Your task to perform on an android device: turn on translation in the chrome app Image 0: 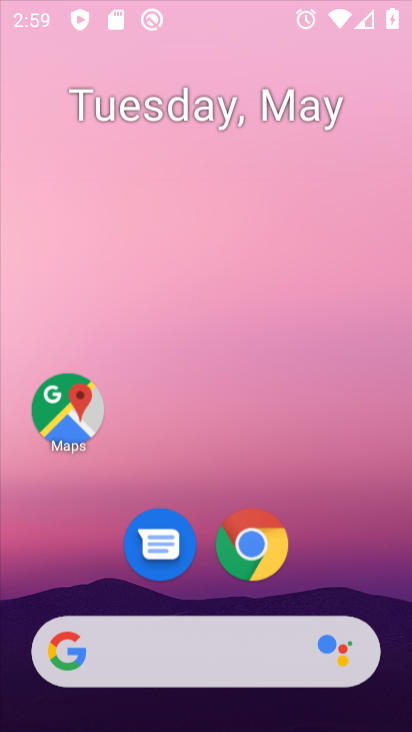
Step 0: click (409, 217)
Your task to perform on an android device: turn on translation in the chrome app Image 1: 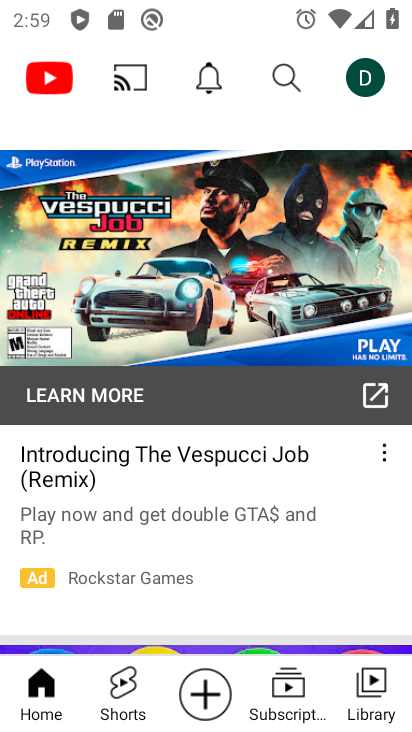
Step 1: press home button
Your task to perform on an android device: turn on translation in the chrome app Image 2: 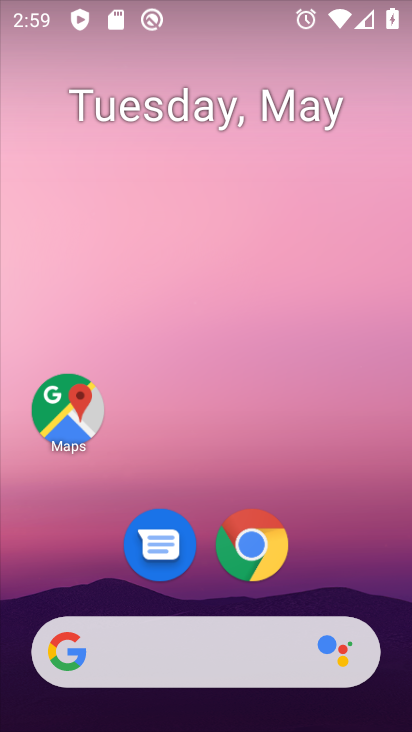
Step 2: click (251, 545)
Your task to perform on an android device: turn on translation in the chrome app Image 3: 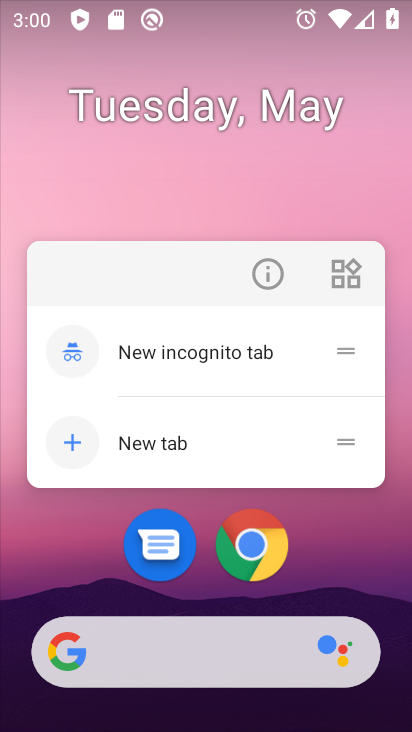
Step 3: click (241, 545)
Your task to perform on an android device: turn on translation in the chrome app Image 4: 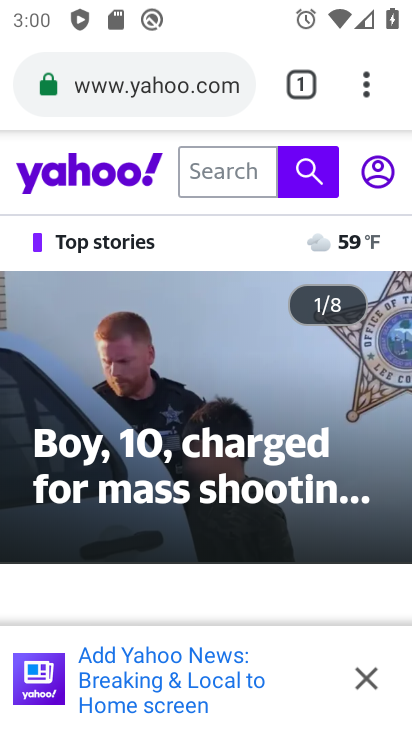
Step 4: drag from (369, 88) to (125, 588)
Your task to perform on an android device: turn on translation in the chrome app Image 5: 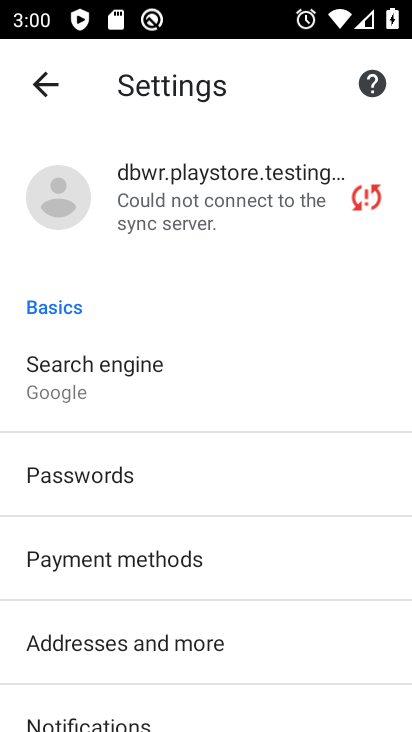
Step 5: drag from (125, 588) to (155, 22)
Your task to perform on an android device: turn on translation in the chrome app Image 6: 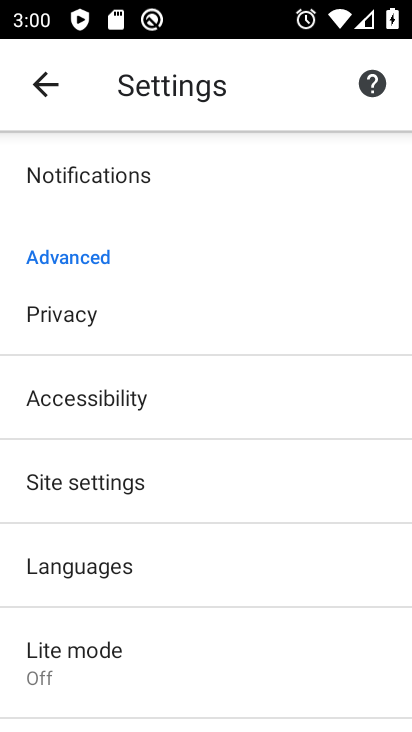
Step 6: click (163, 579)
Your task to perform on an android device: turn on translation in the chrome app Image 7: 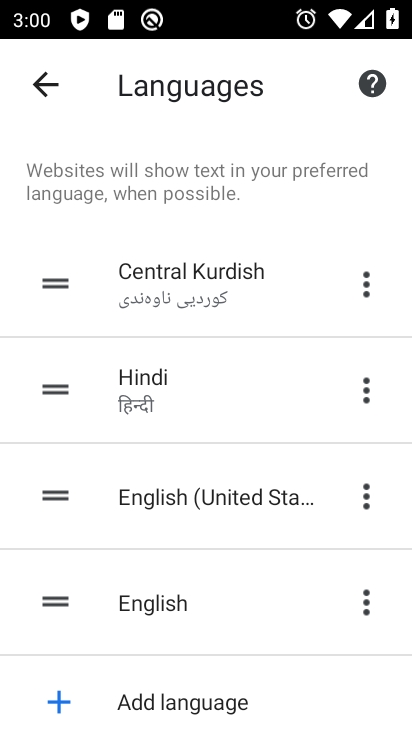
Step 7: drag from (214, 642) to (229, 141)
Your task to perform on an android device: turn on translation in the chrome app Image 8: 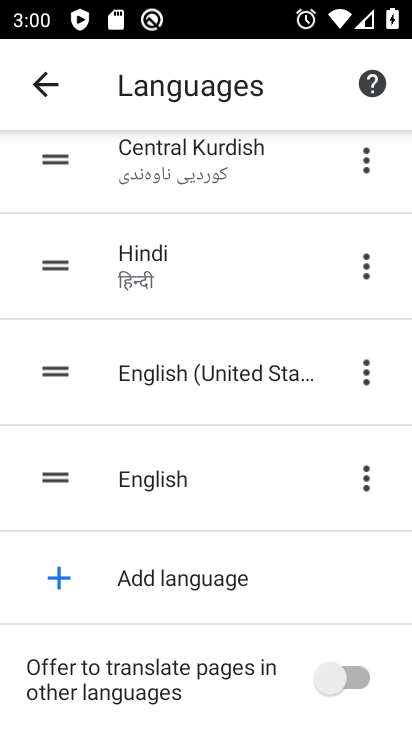
Step 8: click (353, 682)
Your task to perform on an android device: turn on translation in the chrome app Image 9: 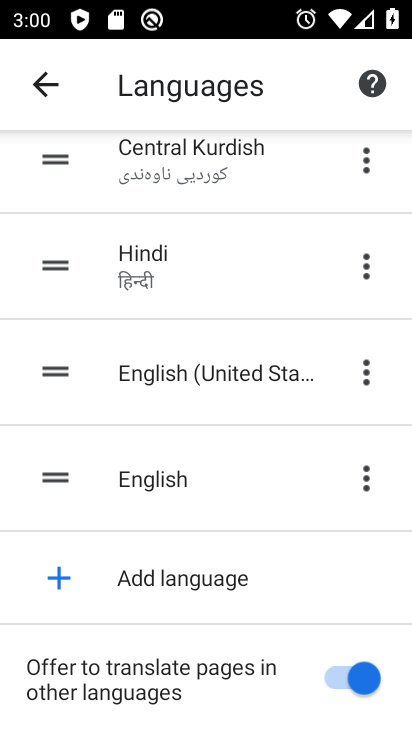
Step 9: task complete